Your task to perform on an android device: turn off sleep mode Image 0: 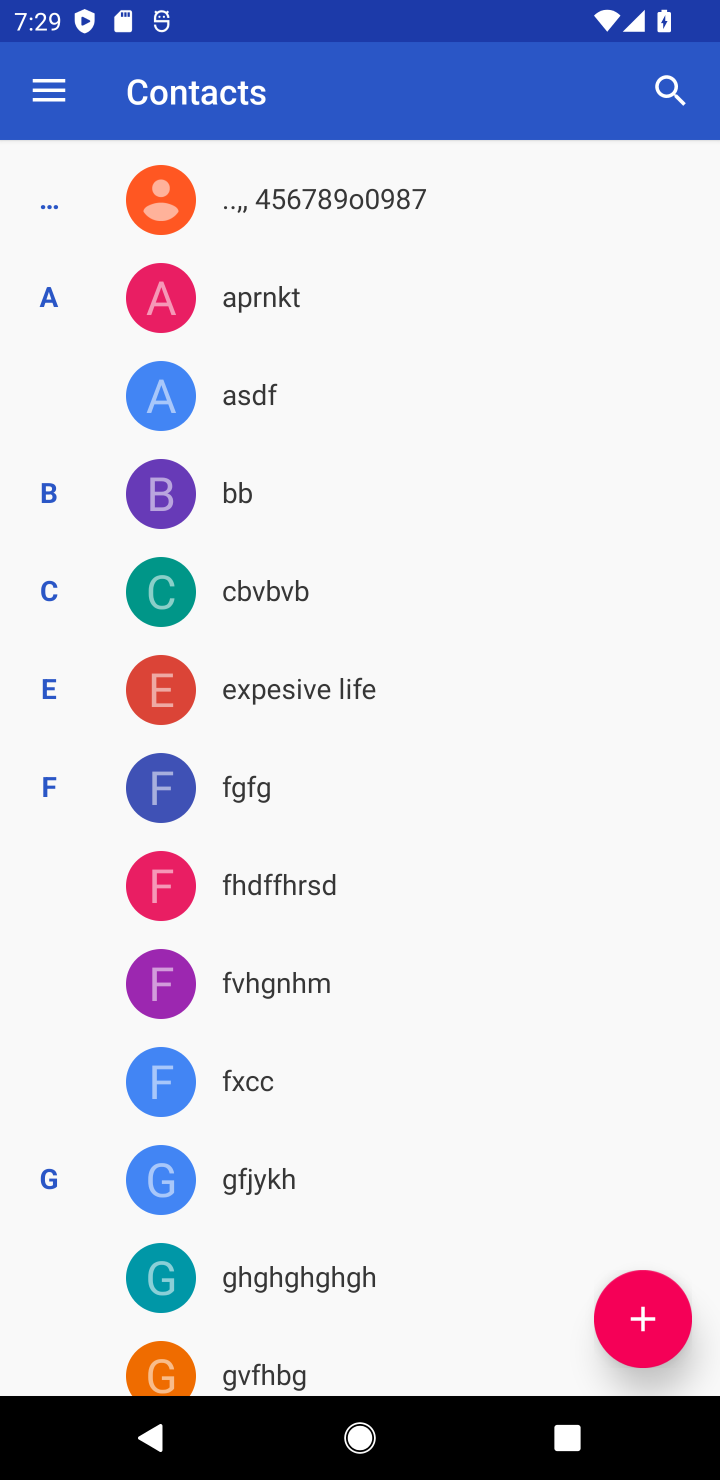
Step 0: press home button
Your task to perform on an android device: turn off sleep mode Image 1: 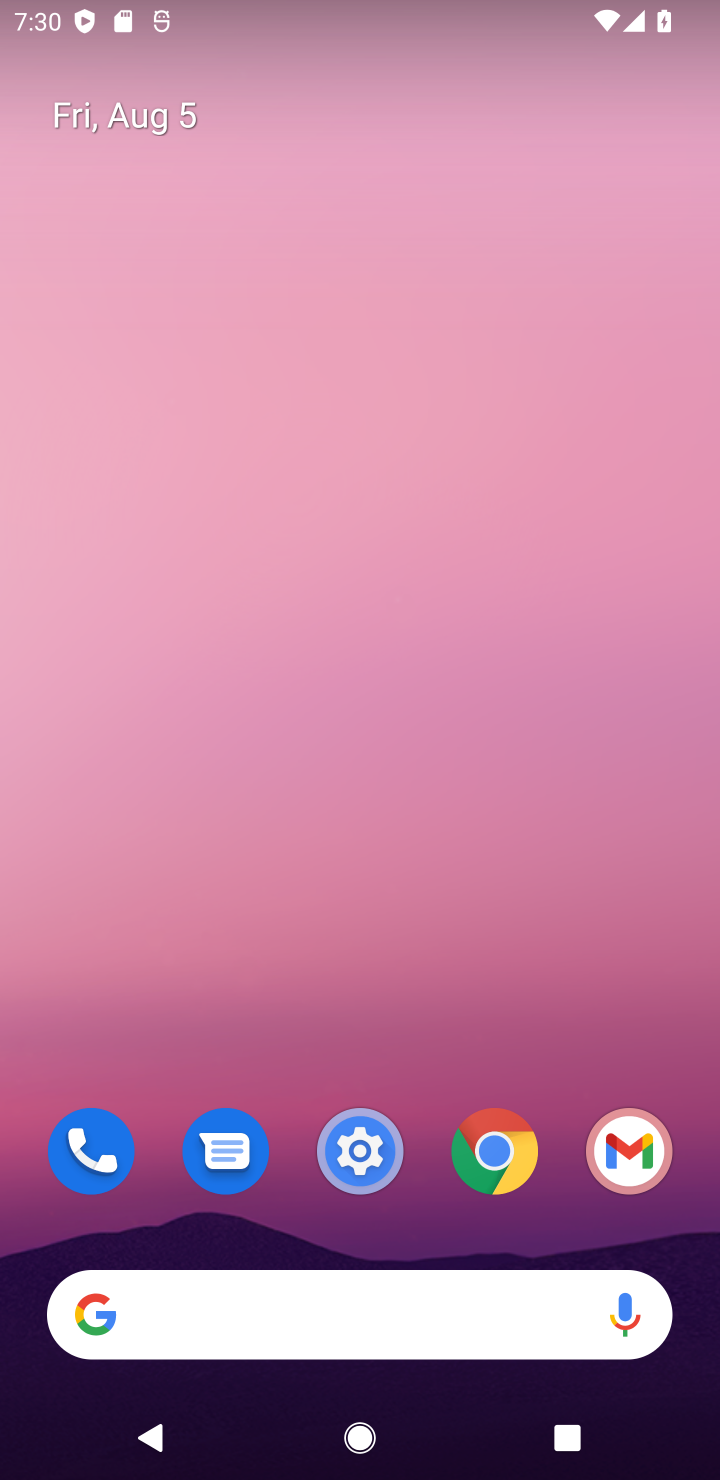
Step 1: drag from (351, 1292) to (489, 76)
Your task to perform on an android device: turn off sleep mode Image 2: 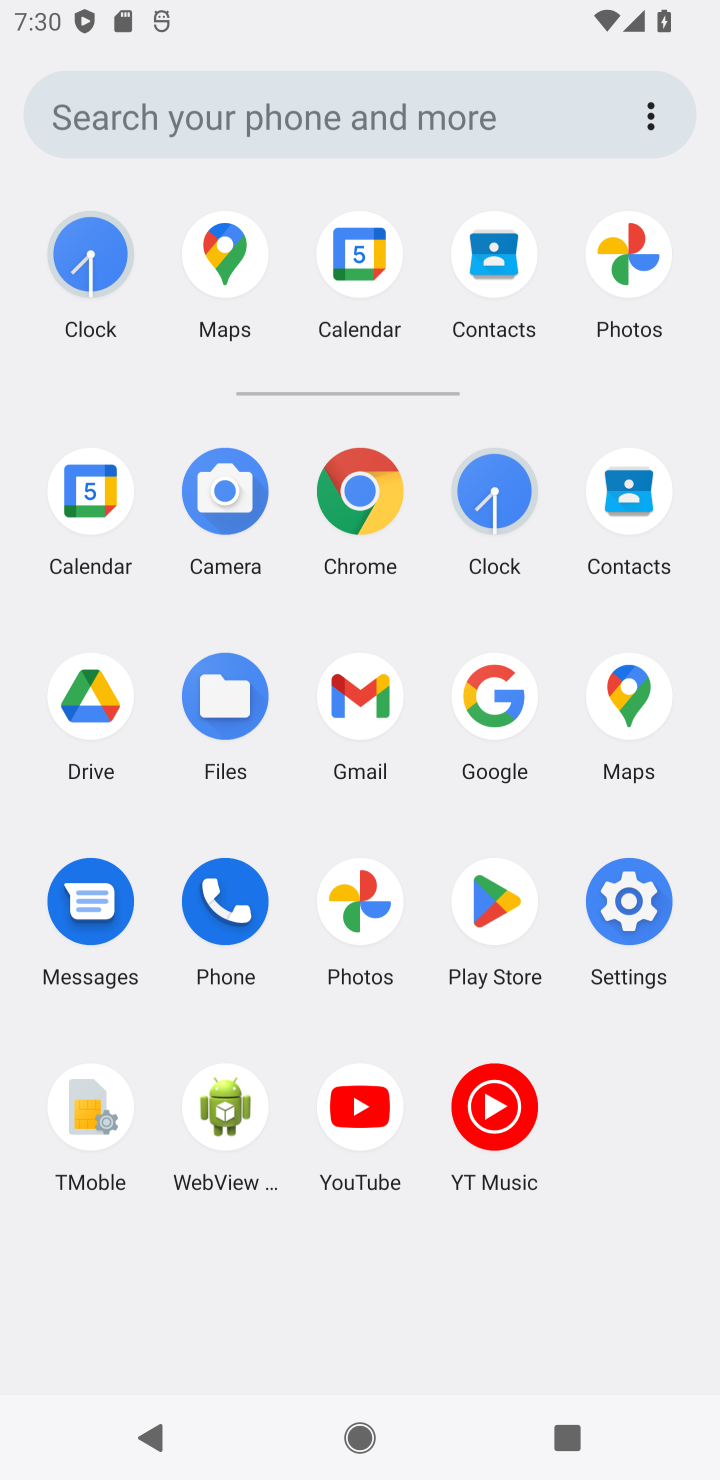
Step 2: click (660, 906)
Your task to perform on an android device: turn off sleep mode Image 3: 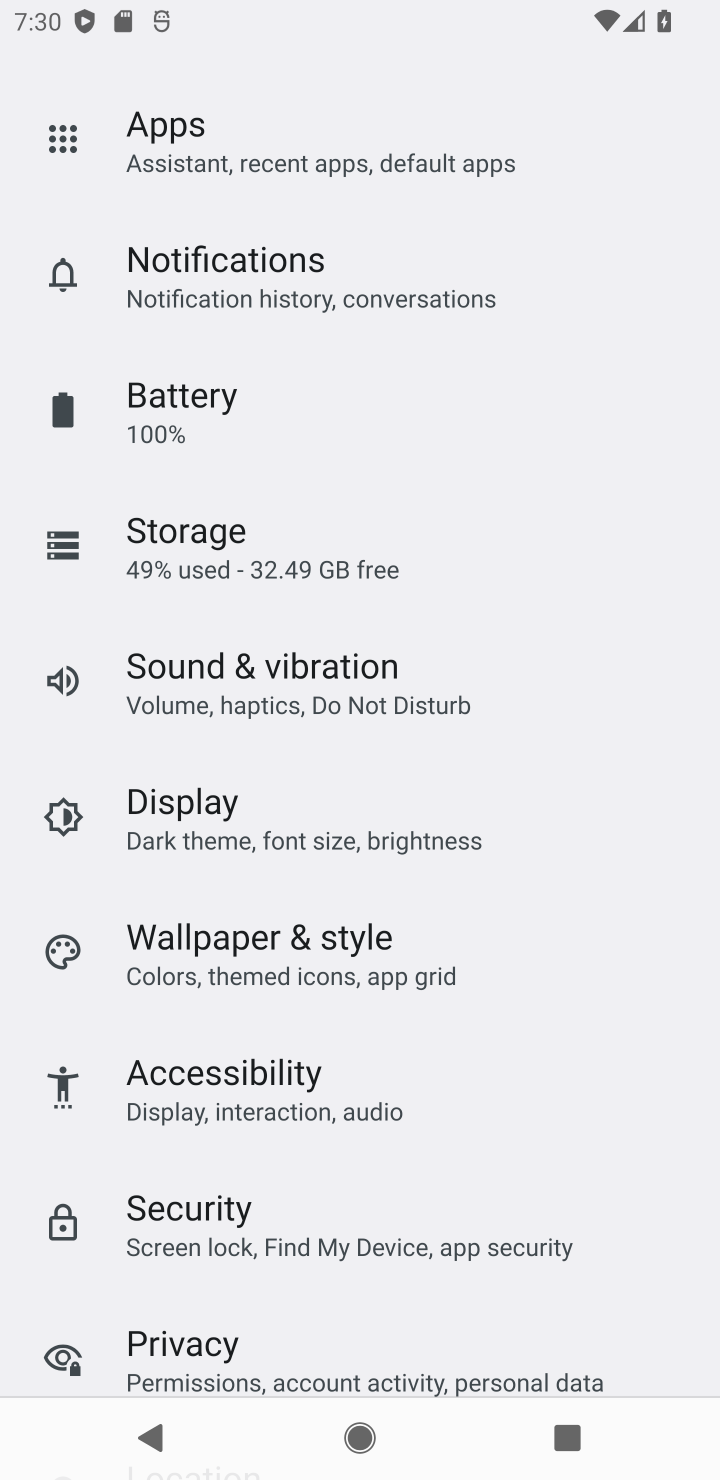
Step 3: drag from (209, 337) to (211, 915)
Your task to perform on an android device: turn off sleep mode Image 4: 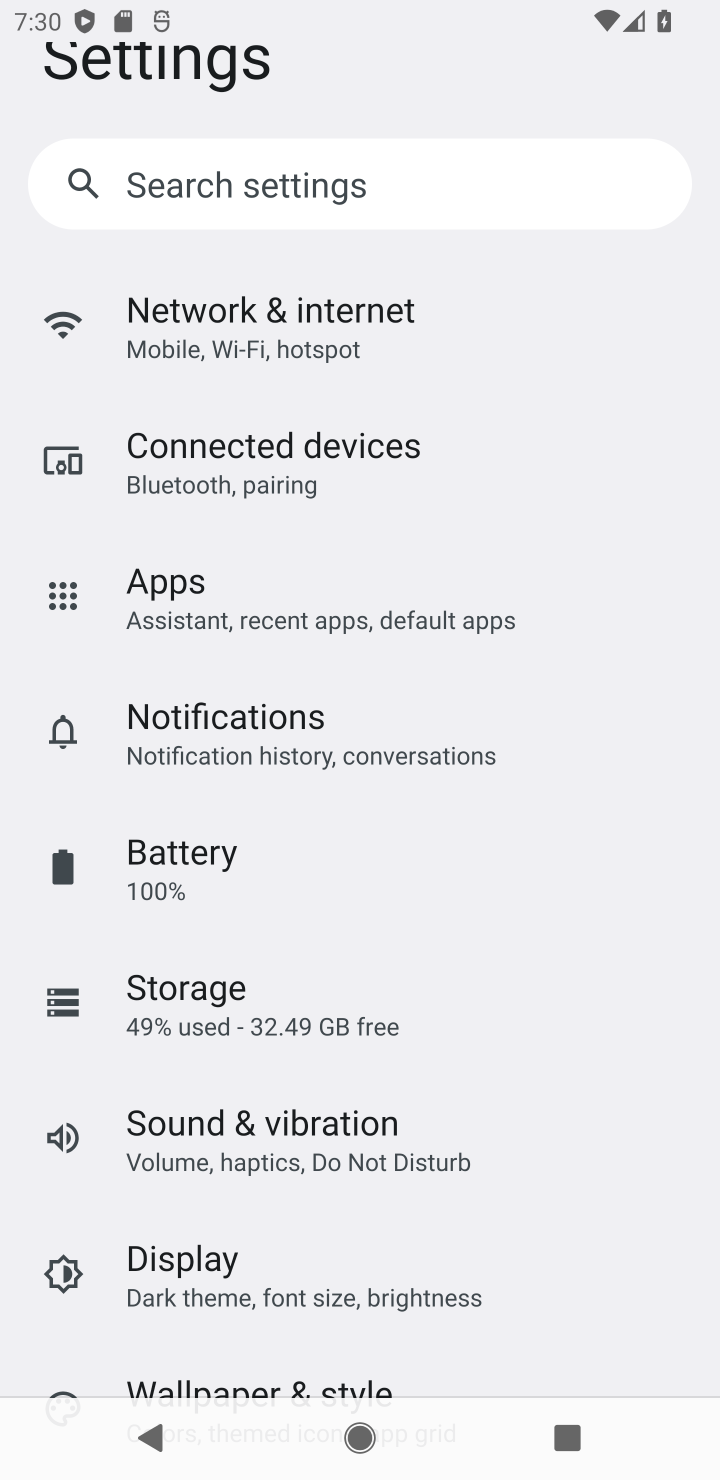
Step 4: drag from (249, 966) to (247, 1200)
Your task to perform on an android device: turn off sleep mode Image 5: 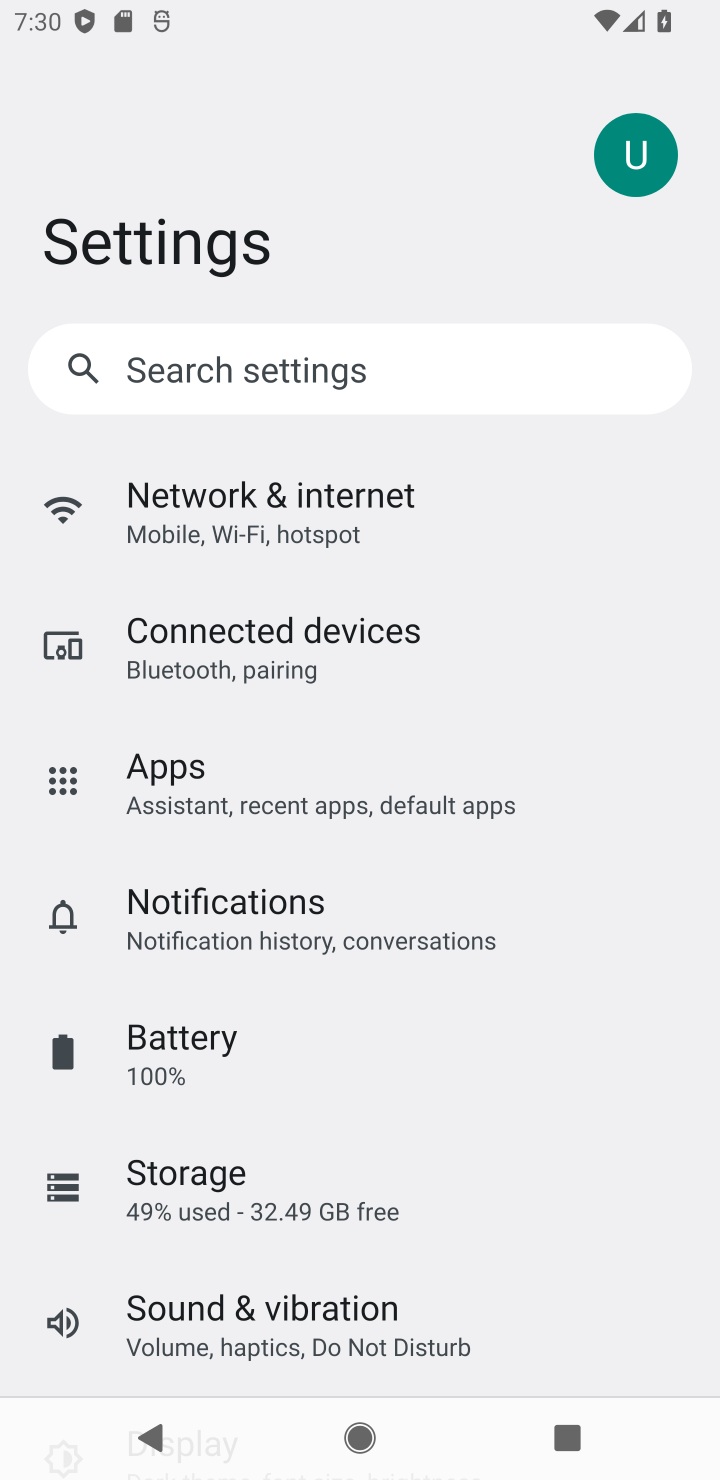
Step 5: click (206, 1303)
Your task to perform on an android device: turn off sleep mode Image 6: 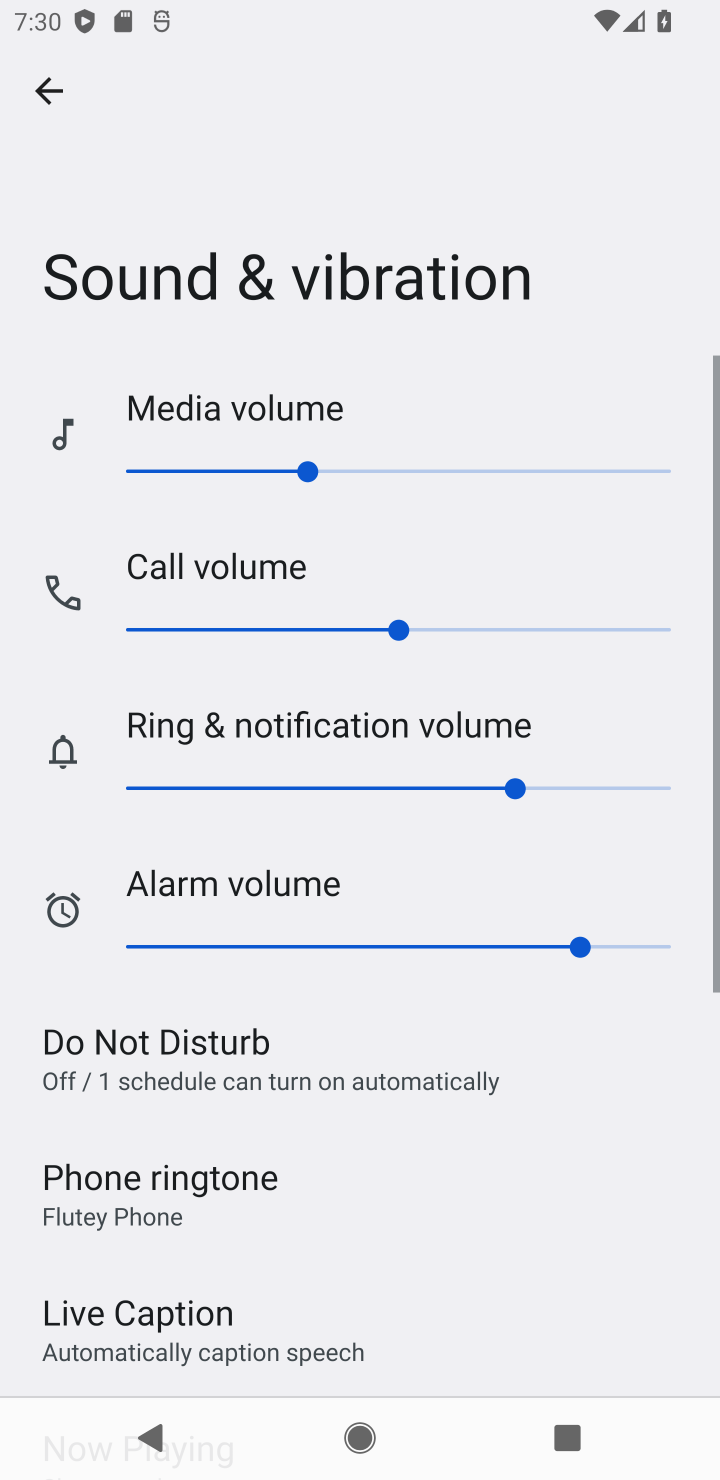
Step 6: task complete